Your task to perform on an android device: Search for Mexican restaurants on Maps Image 0: 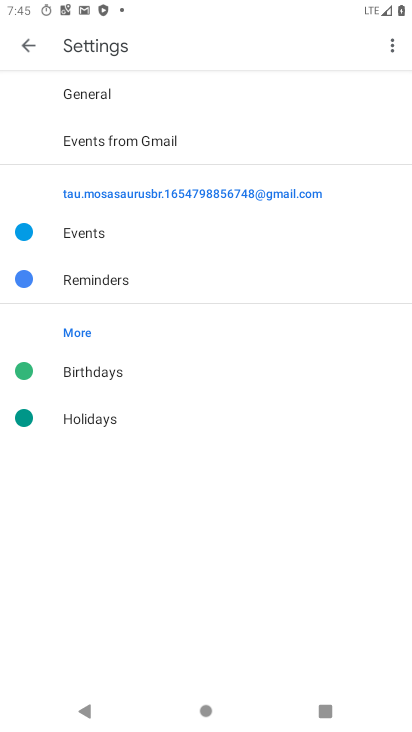
Step 0: press home button
Your task to perform on an android device: Search for Mexican restaurants on Maps Image 1: 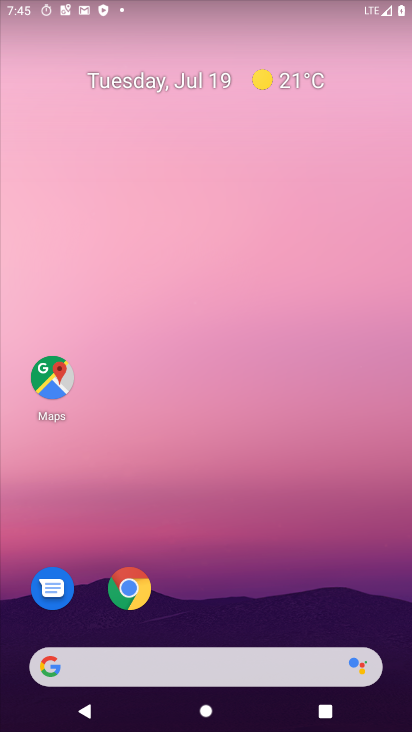
Step 1: drag from (300, 565) to (296, 202)
Your task to perform on an android device: Search for Mexican restaurants on Maps Image 2: 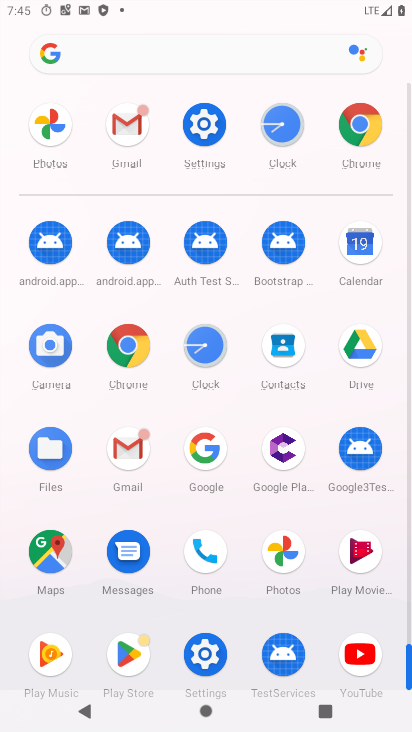
Step 2: click (43, 575)
Your task to perform on an android device: Search for Mexican restaurants on Maps Image 3: 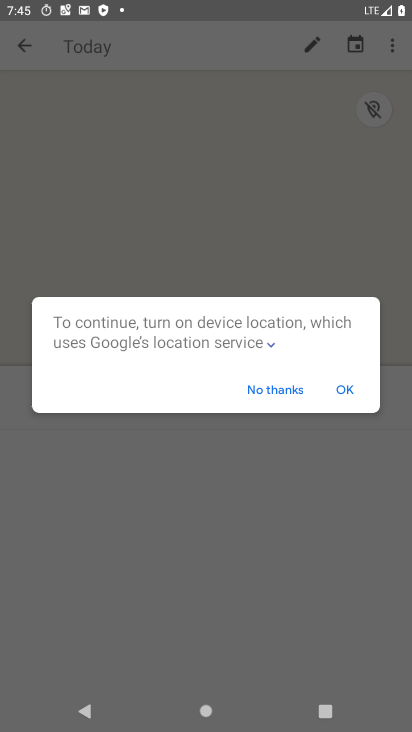
Step 3: click (354, 398)
Your task to perform on an android device: Search for Mexican restaurants on Maps Image 4: 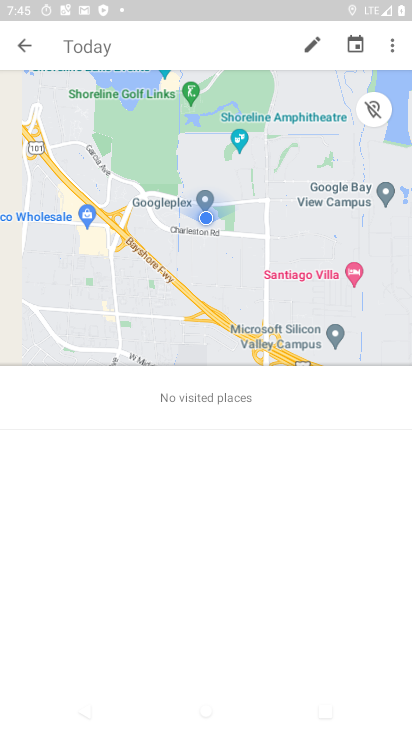
Step 4: press back button
Your task to perform on an android device: Search for Mexican restaurants on Maps Image 5: 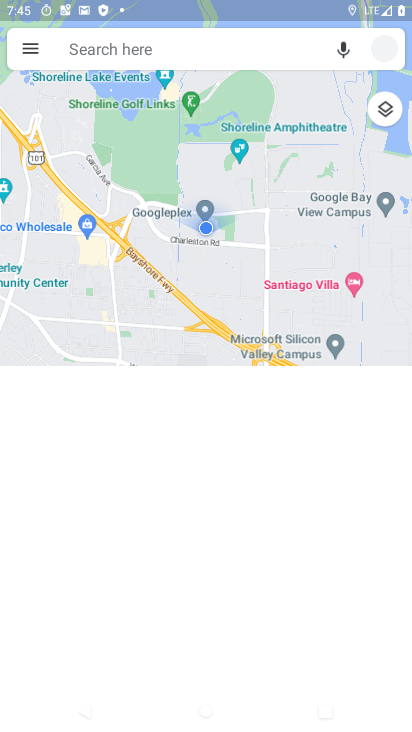
Step 5: click (100, 49)
Your task to perform on an android device: Search for Mexican restaurants on Maps Image 6: 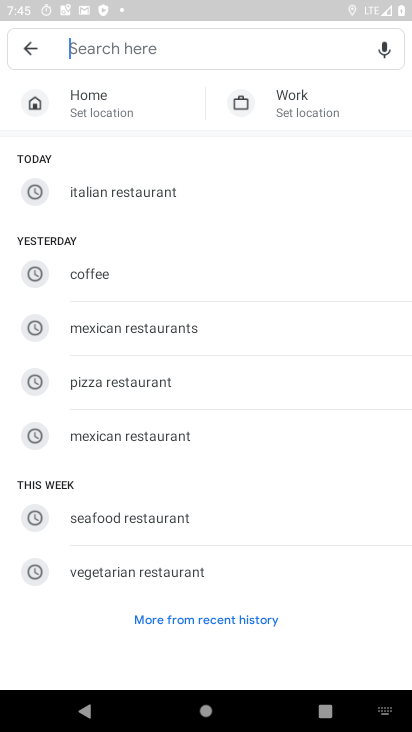
Step 6: click (177, 434)
Your task to perform on an android device: Search for Mexican restaurants on Maps Image 7: 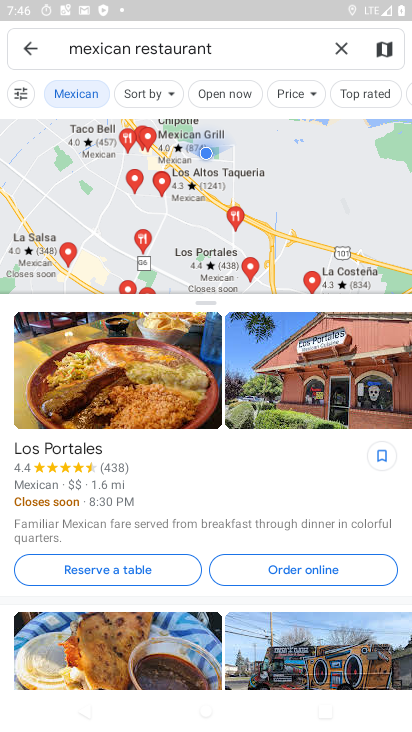
Step 7: task complete